Your task to perform on an android device: open a bookmark in the chrome app Image 0: 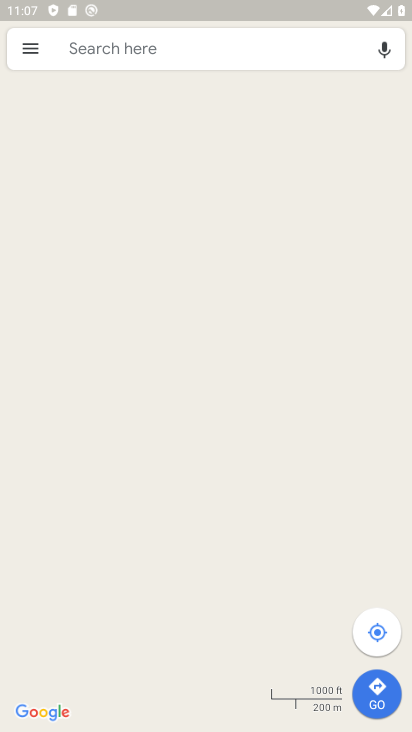
Step 0: press home button
Your task to perform on an android device: open a bookmark in the chrome app Image 1: 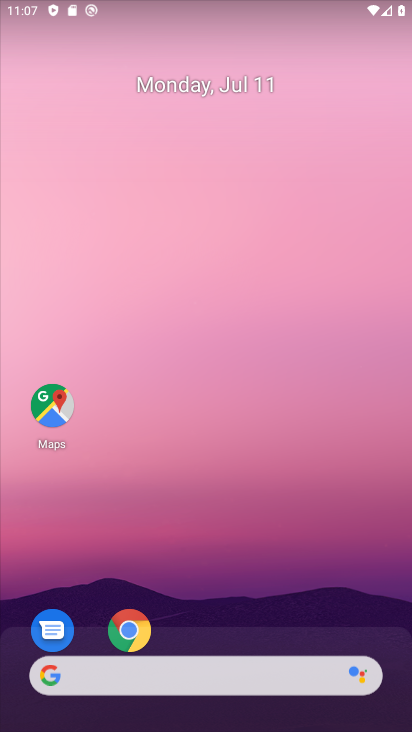
Step 1: click (122, 625)
Your task to perform on an android device: open a bookmark in the chrome app Image 2: 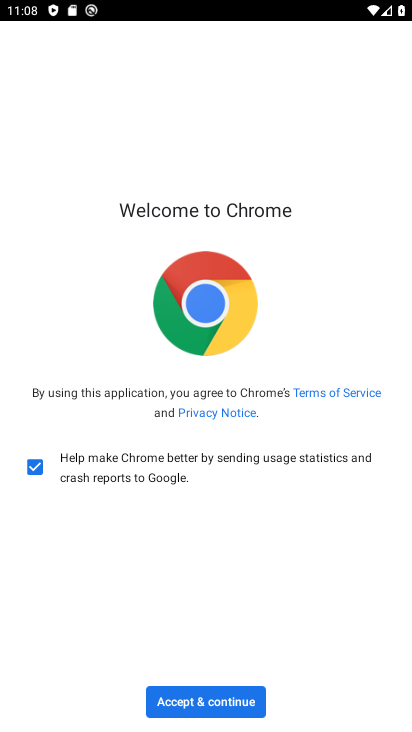
Step 2: click (219, 706)
Your task to perform on an android device: open a bookmark in the chrome app Image 3: 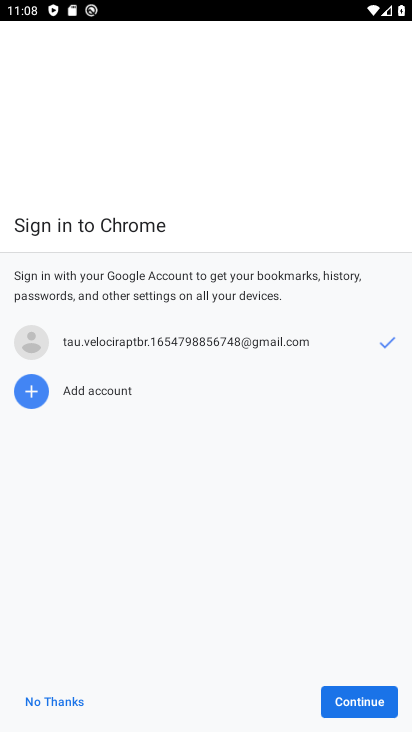
Step 3: click (356, 699)
Your task to perform on an android device: open a bookmark in the chrome app Image 4: 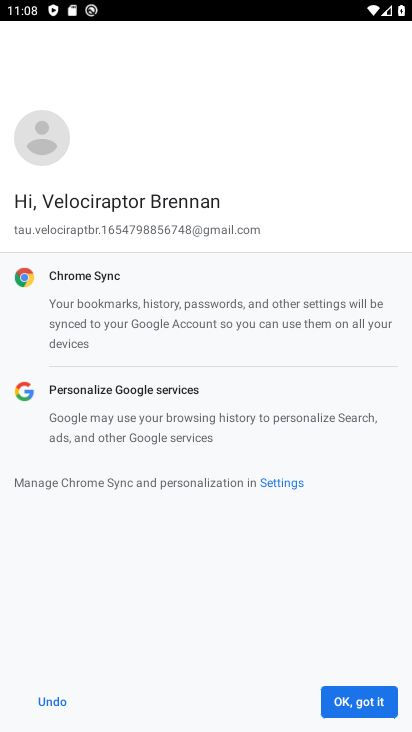
Step 4: click (368, 697)
Your task to perform on an android device: open a bookmark in the chrome app Image 5: 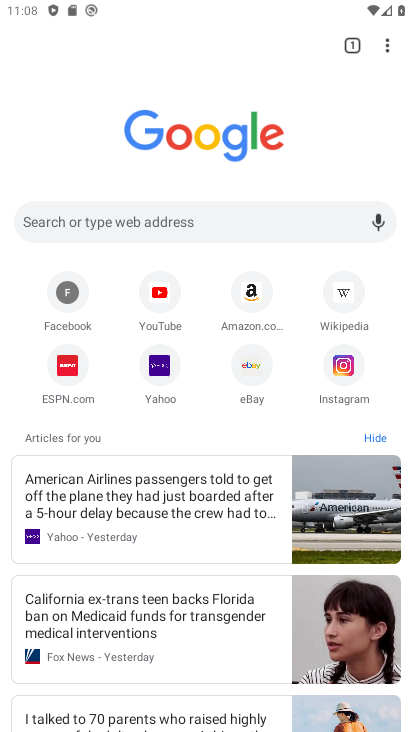
Step 5: click (393, 40)
Your task to perform on an android device: open a bookmark in the chrome app Image 6: 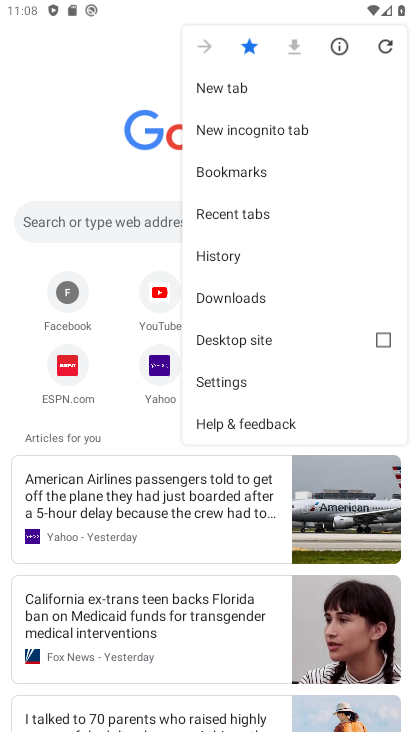
Step 6: click (237, 152)
Your task to perform on an android device: open a bookmark in the chrome app Image 7: 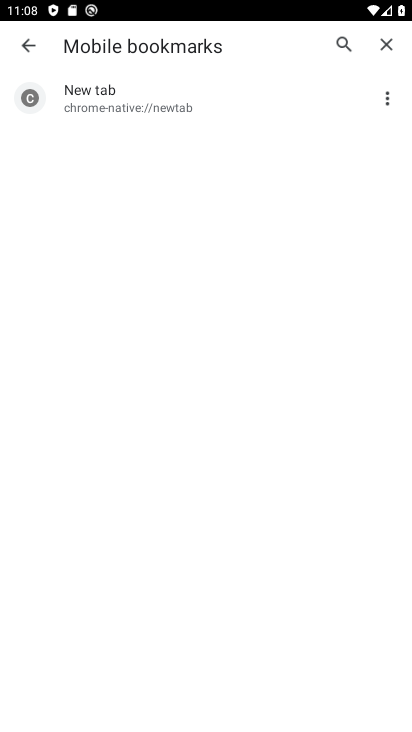
Step 7: click (225, 107)
Your task to perform on an android device: open a bookmark in the chrome app Image 8: 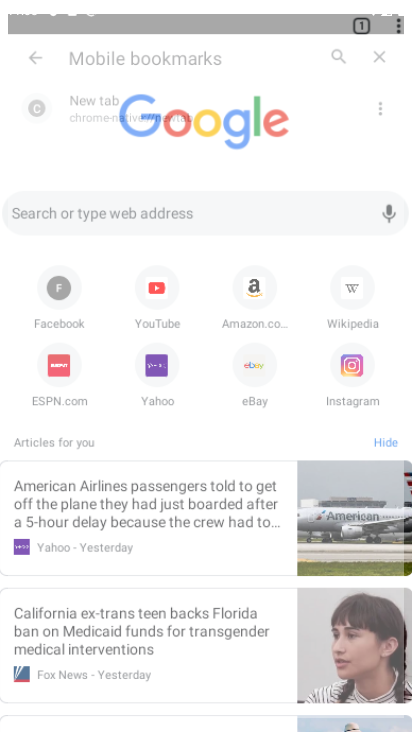
Step 8: click (159, 96)
Your task to perform on an android device: open a bookmark in the chrome app Image 9: 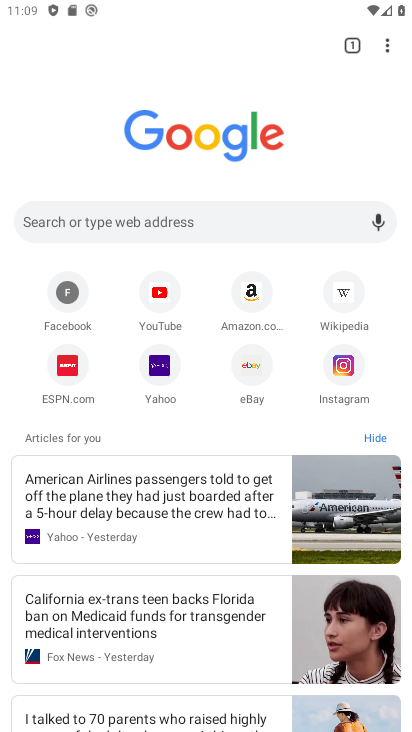
Step 9: task complete